Your task to perform on an android device: set an alarm Image 0: 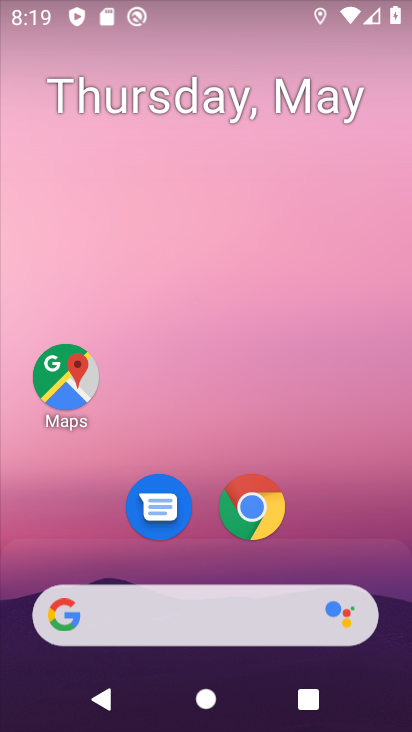
Step 0: drag from (198, 510) to (238, 42)
Your task to perform on an android device: set an alarm Image 1: 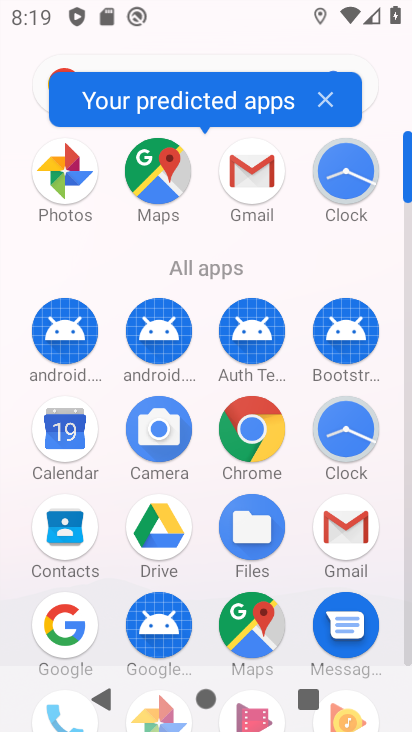
Step 1: click (343, 422)
Your task to perform on an android device: set an alarm Image 2: 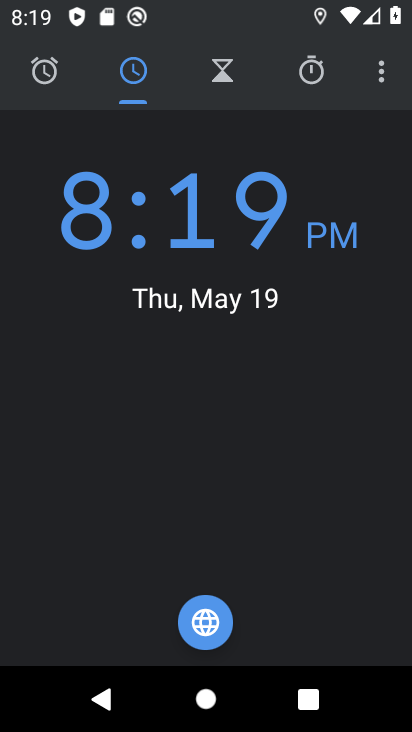
Step 2: click (50, 83)
Your task to perform on an android device: set an alarm Image 3: 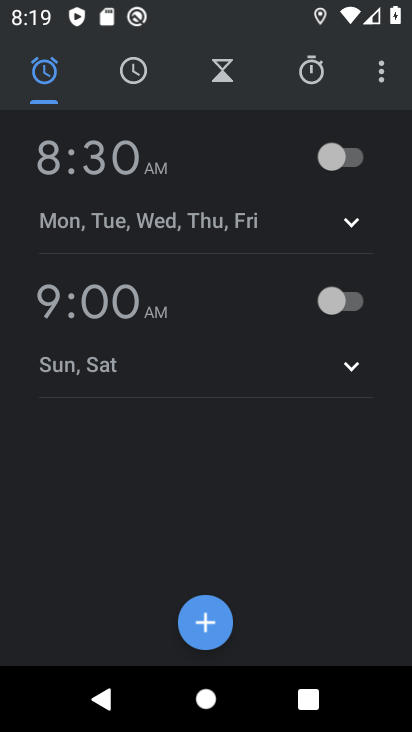
Step 3: click (204, 626)
Your task to perform on an android device: set an alarm Image 4: 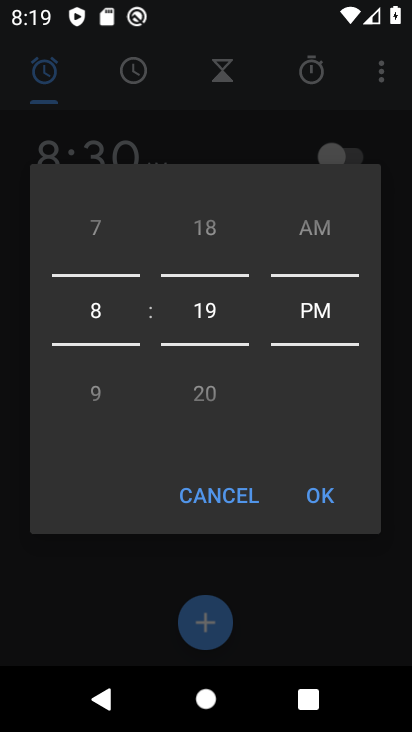
Step 4: drag from (102, 286) to (124, 52)
Your task to perform on an android device: set an alarm Image 5: 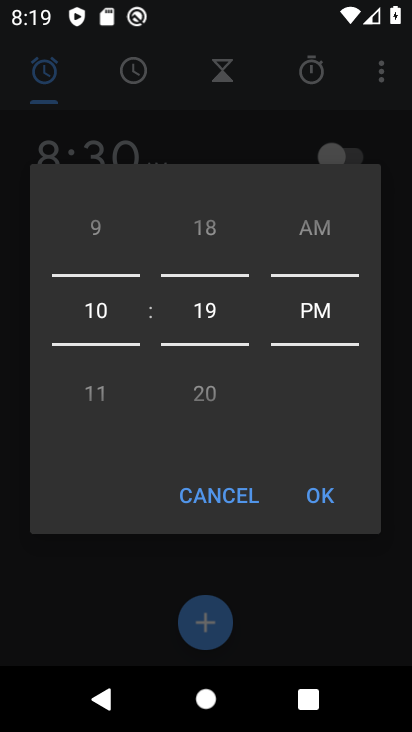
Step 5: click (326, 500)
Your task to perform on an android device: set an alarm Image 6: 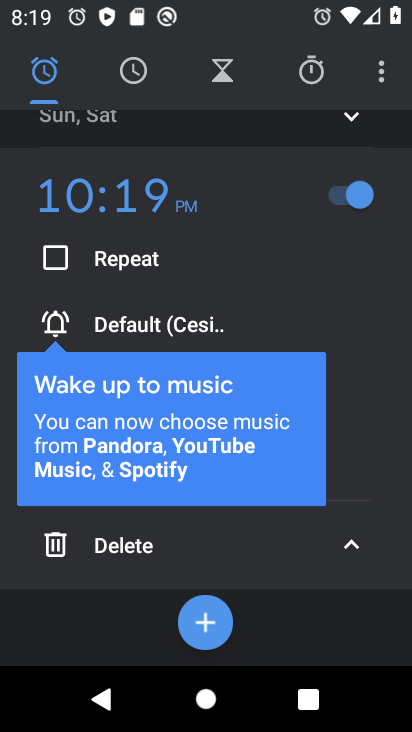
Step 6: click (170, 323)
Your task to perform on an android device: set an alarm Image 7: 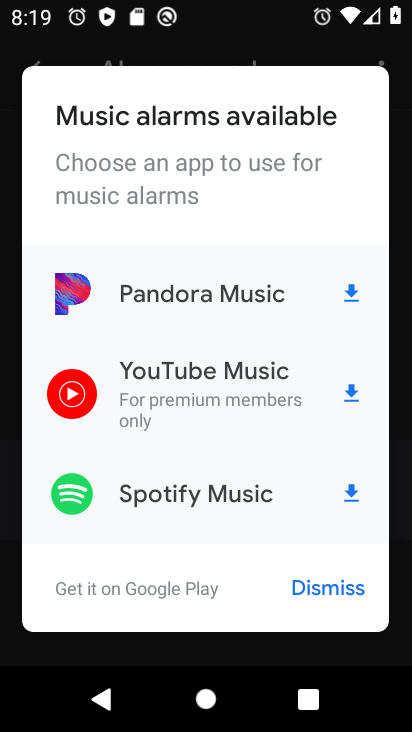
Step 7: click (316, 580)
Your task to perform on an android device: set an alarm Image 8: 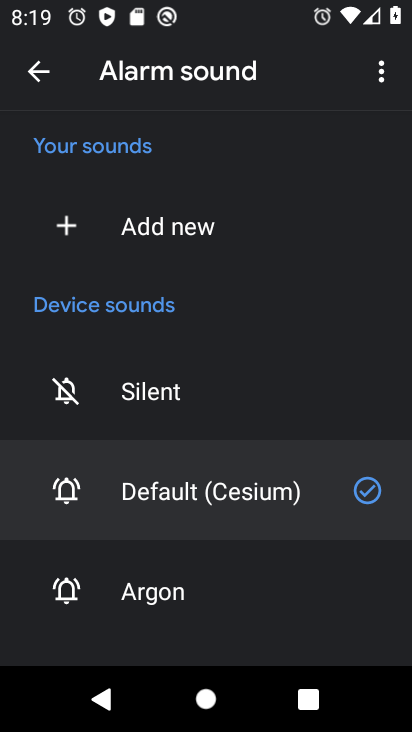
Step 8: click (40, 67)
Your task to perform on an android device: set an alarm Image 9: 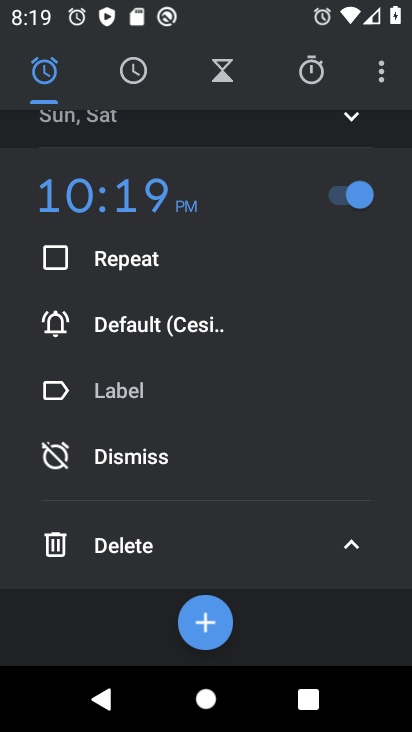
Step 9: click (353, 543)
Your task to perform on an android device: set an alarm Image 10: 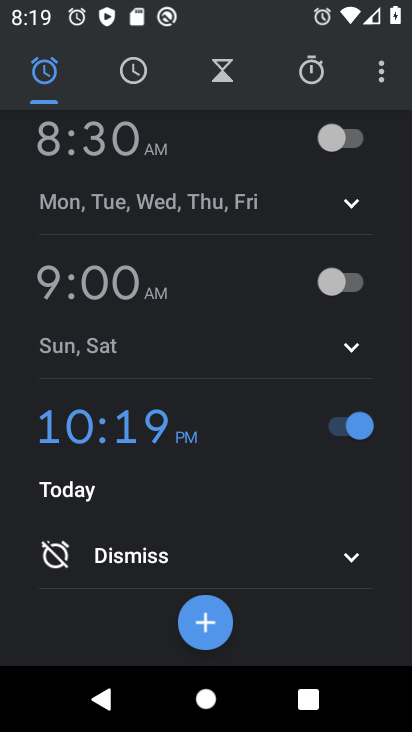
Step 10: task complete